Your task to perform on an android device: turn on the 24-hour format for clock Image 0: 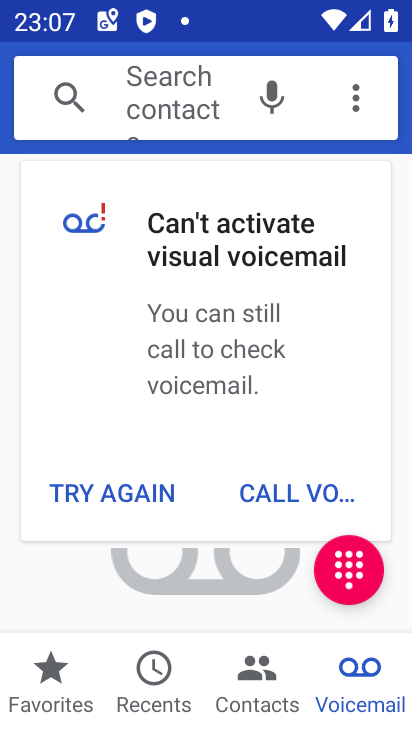
Step 0: press home button
Your task to perform on an android device: turn on the 24-hour format for clock Image 1: 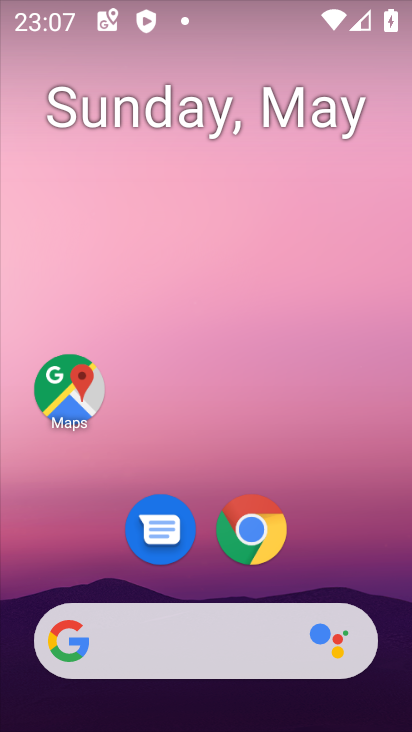
Step 1: drag from (364, 547) to (281, 30)
Your task to perform on an android device: turn on the 24-hour format for clock Image 2: 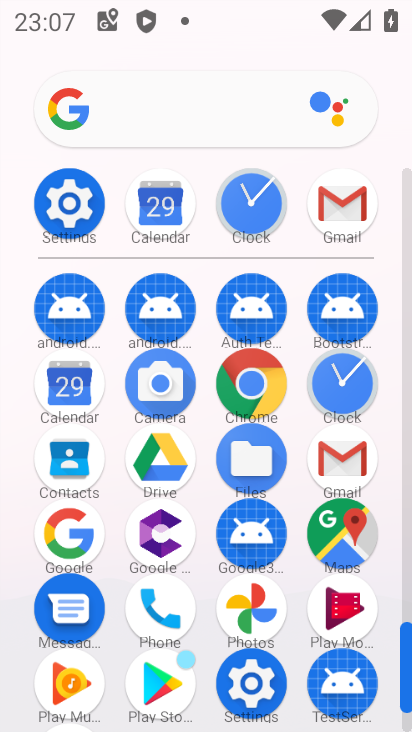
Step 2: click (256, 192)
Your task to perform on an android device: turn on the 24-hour format for clock Image 3: 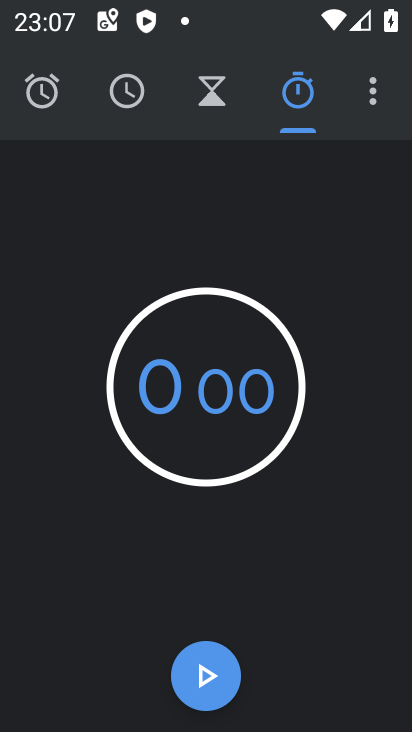
Step 3: click (373, 88)
Your task to perform on an android device: turn on the 24-hour format for clock Image 4: 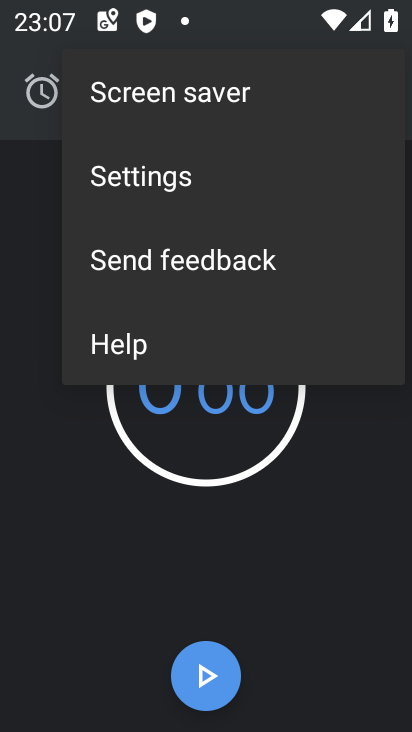
Step 4: click (192, 203)
Your task to perform on an android device: turn on the 24-hour format for clock Image 5: 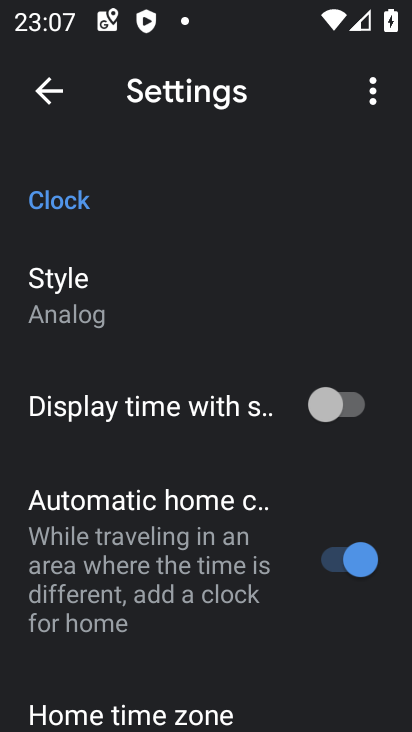
Step 5: task complete